Your task to perform on an android device: find which apps use the phone's location Image 0: 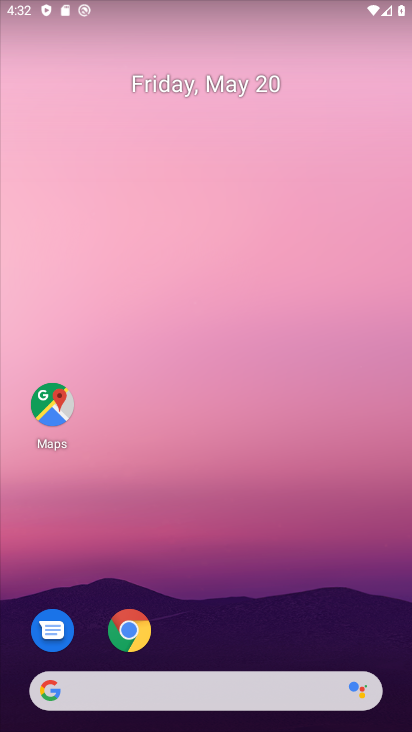
Step 0: drag from (255, 583) to (317, 38)
Your task to perform on an android device: find which apps use the phone's location Image 1: 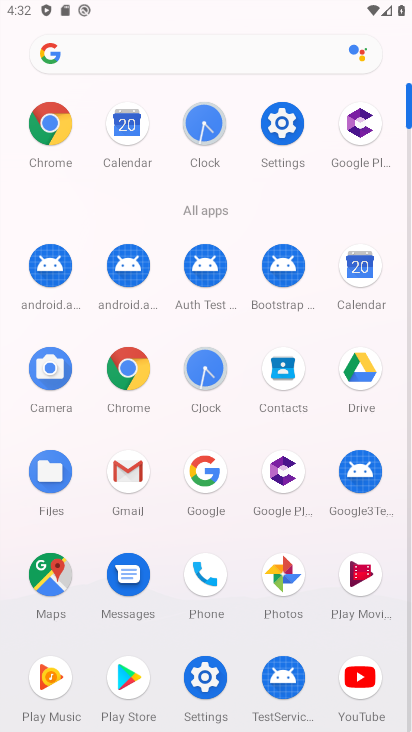
Step 1: click (284, 118)
Your task to perform on an android device: find which apps use the phone's location Image 2: 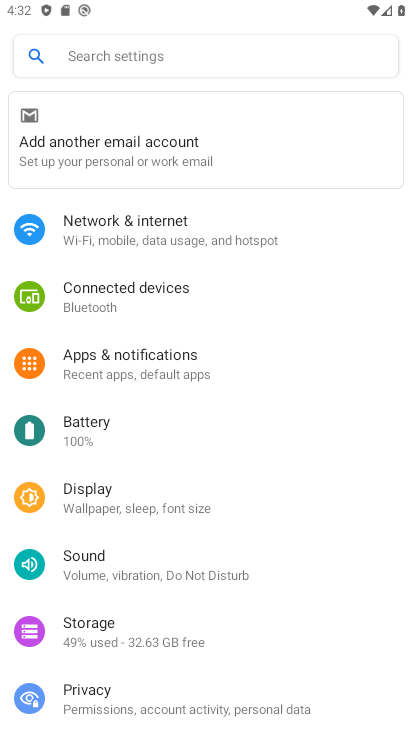
Step 2: drag from (204, 492) to (226, 201)
Your task to perform on an android device: find which apps use the phone's location Image 3: 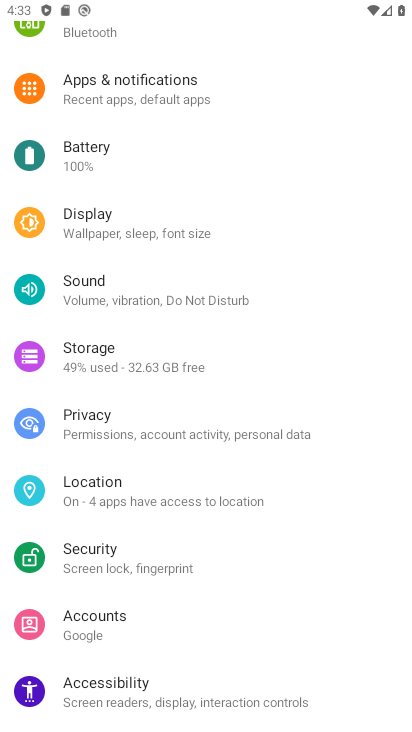
Step 3: click (200, 481)
Your task to perform on an android device: find which apps use the phone's location Image 4: 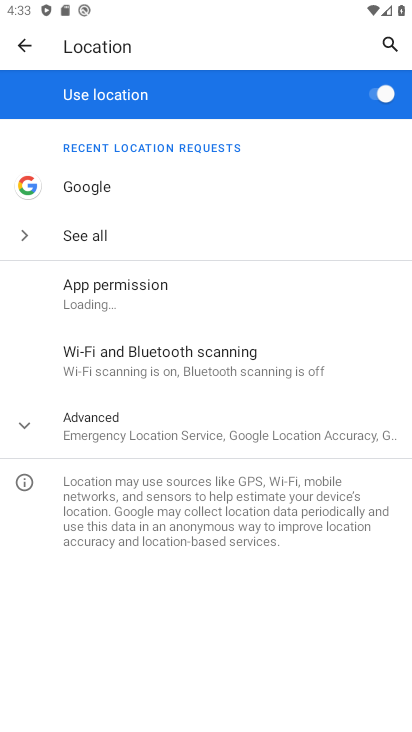
Step 4: click (214, 297)
Your task to perform on an android device: find which apps use the phone's location Image 5: 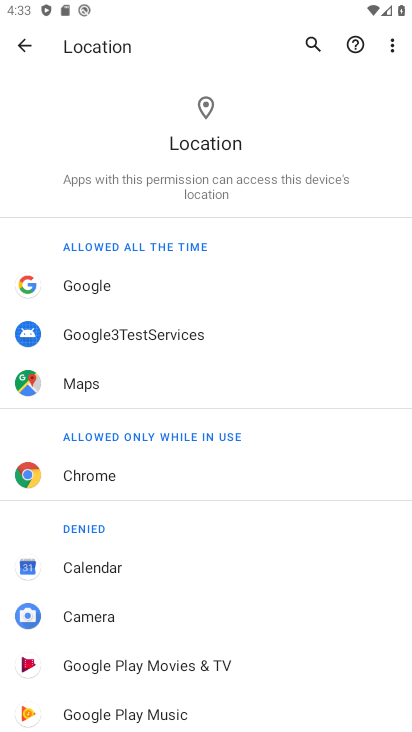
Step 5: task complete